Your task to perform on an android device: set the timer Image 0: 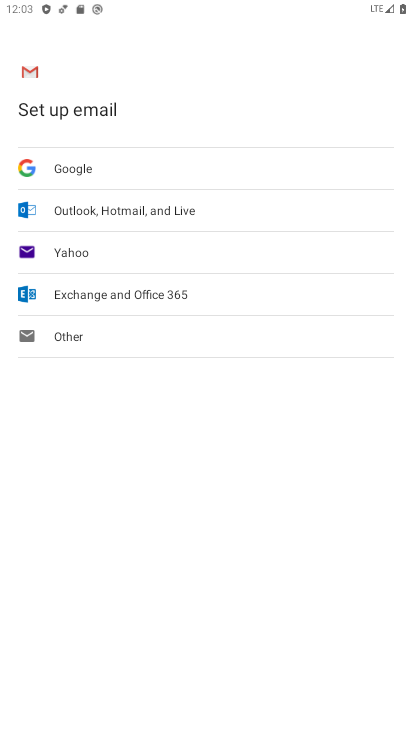
Step 0: press home button
Your task to perform on an android device: set the timer Image 1: 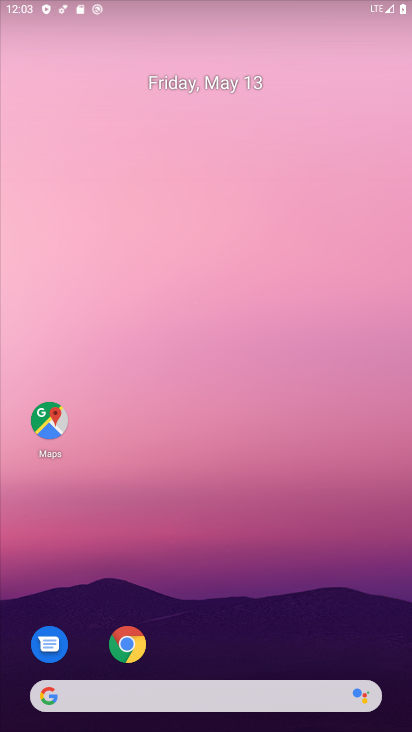
Step 1: drag from (332, 634) to (247, 72)
Your task to perform on an android device: set the timer Image 2: 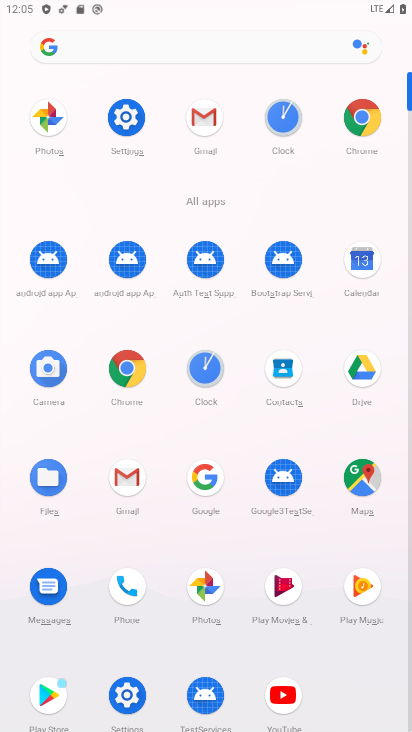
Step 2: click (213, 367)
Your task to perform on an android device: set the timer Image 3: 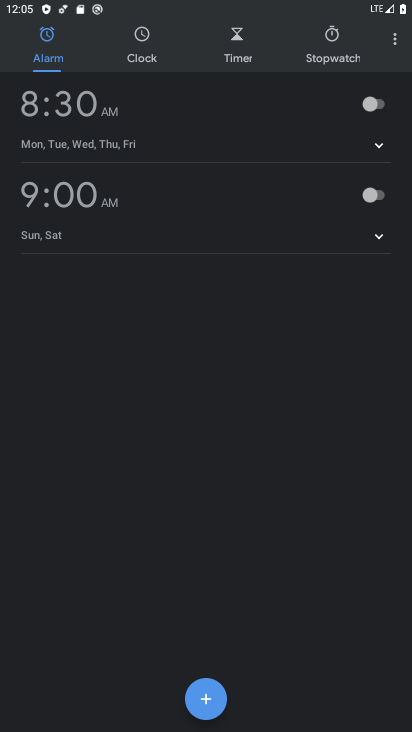
Step 3: click (394, 35)
Your task to perform on an android device: set the timer Image 4: 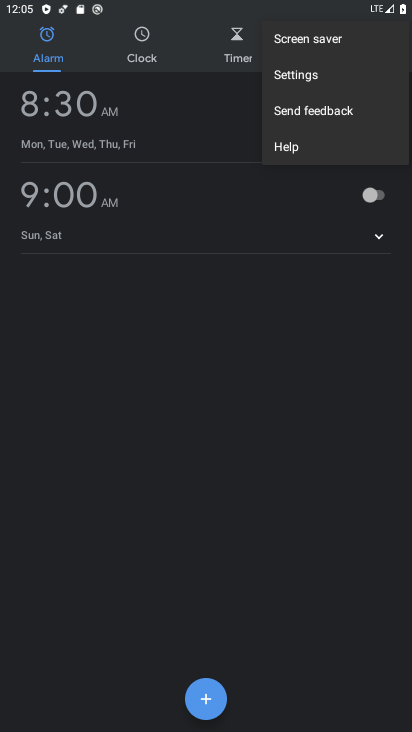
Step 4: click (340, 65)
Your task to perform on an android device: set the timer Image 5: 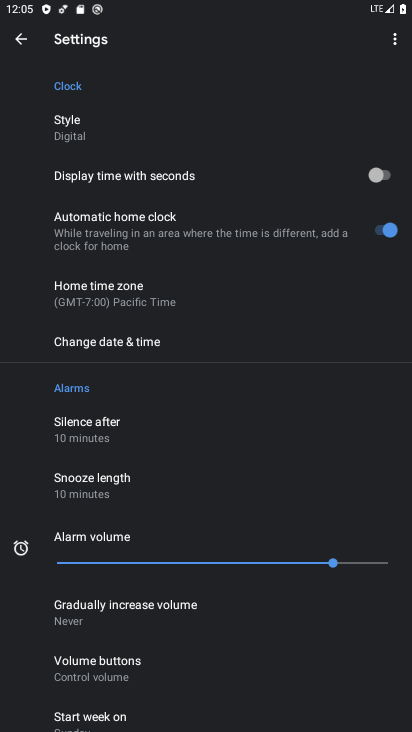
Step 5: click (164, 303)
Your task to perform on an android device: set the timer Image 6: 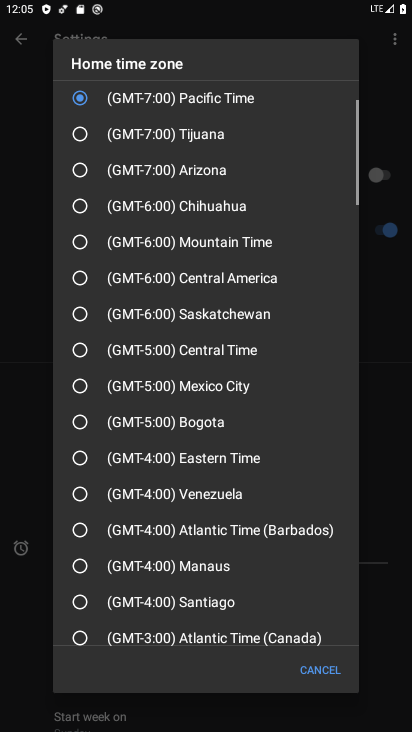
Step 6: click (165, 310)
Your task to perform on an android device: set the timer Image 7: 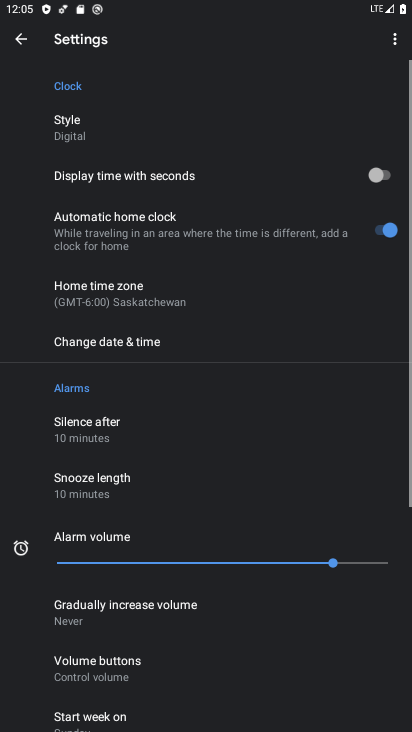
Step 7: task complete